Your task to perform on an android device: toggle pop-ups in chrome Image 0: 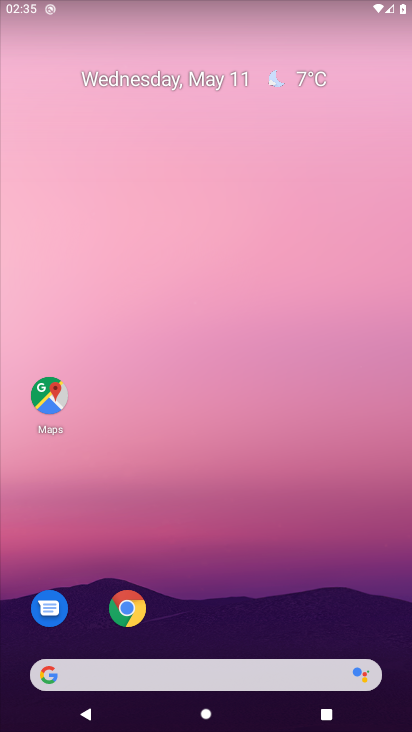
Step 0: click (123, 603)
Your task to perform on an android device: toggle pop-ups in chrome Image 1: 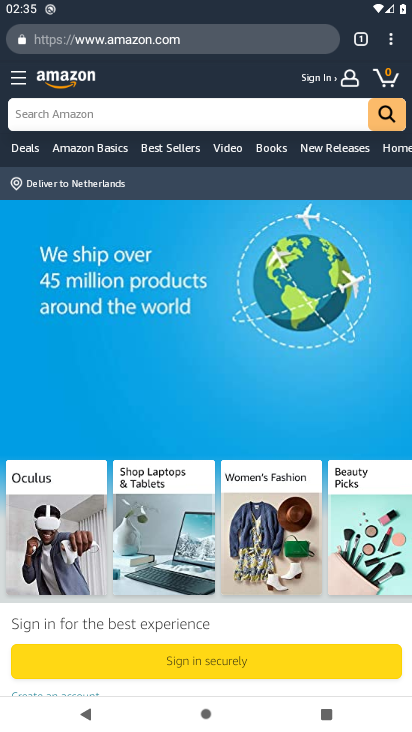
Step 1: click (391, 36)
Your task to perform on an android device: toggle pop-ups in chrome Image 2: 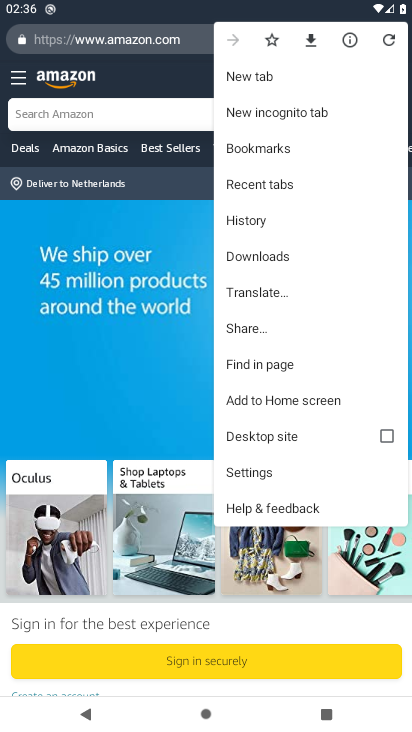
Step 2: click (277, 472)
Your task to perform on an android device: toggle pop-ups in chrome Image 3: 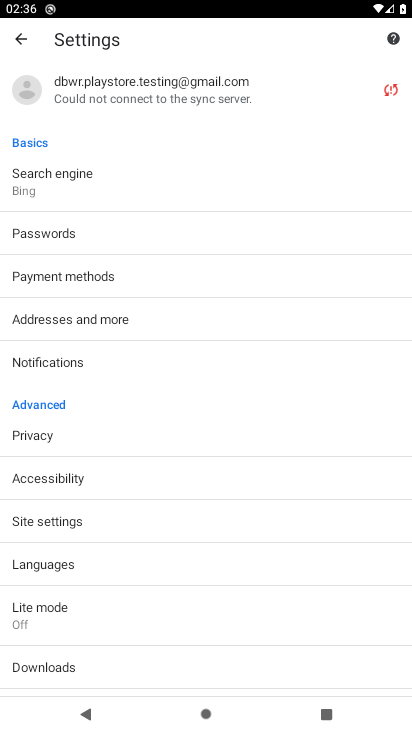
Step 3: click (102, 518)
Your task to perform on an android device: toggle pop-ups in chrome Image 4: 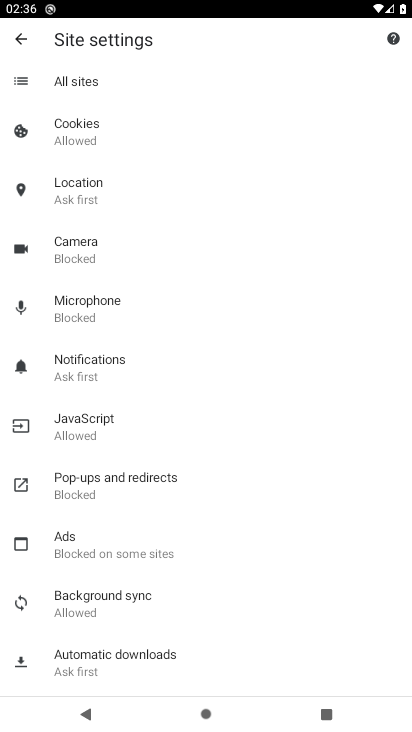
Step 4: drag from (194, 671) to (202, 142)
Your task to perform on an android device: toggle pop-ups in chrome Image 5: 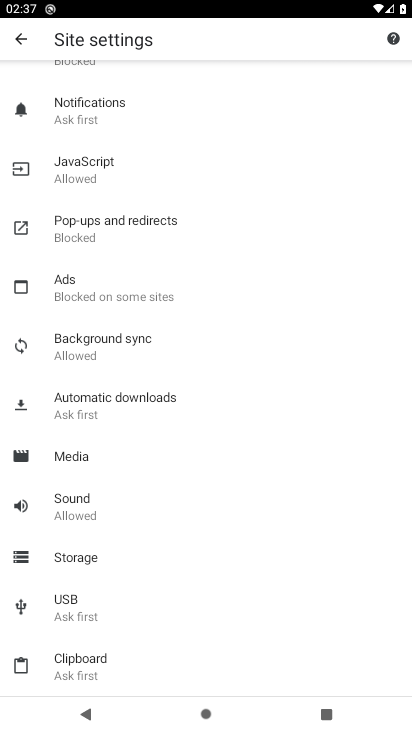
Step 5: click (157, 231)
Your task to perform on an android device: toggle pop-ups in chrome Image 6: 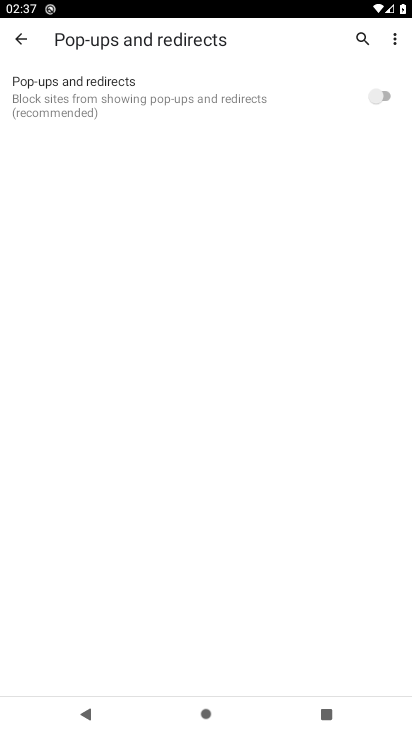
Step 6: click (383, 93)
Your task to perform on an android device: toggle pop-ups in chrome Image 7: 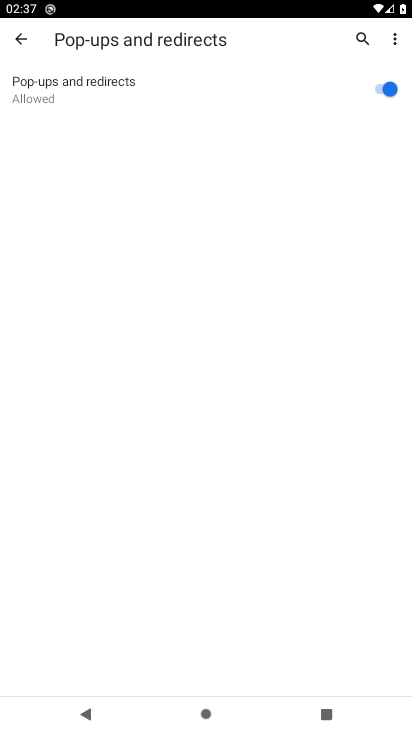
Step 7: task complete